Your task to perform on an android device: snooze an email in the gmail app Image 0: 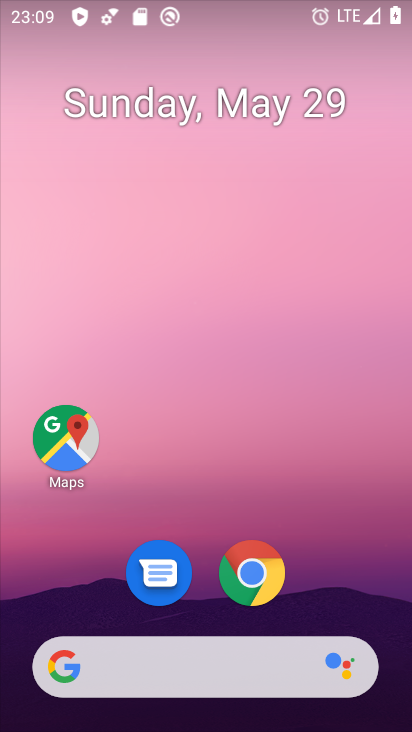
Step 0: drag from (343, 603) to (144, 24)
Your task to perform on an android device: snooze an email in the gmail app Image 1: 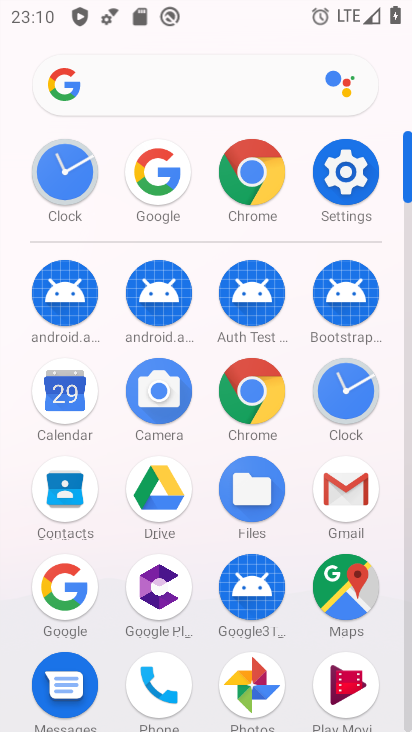
Step 1: click (336, 496)
Your task to perform on an android device: snooze an email in the gmail app Image 2: 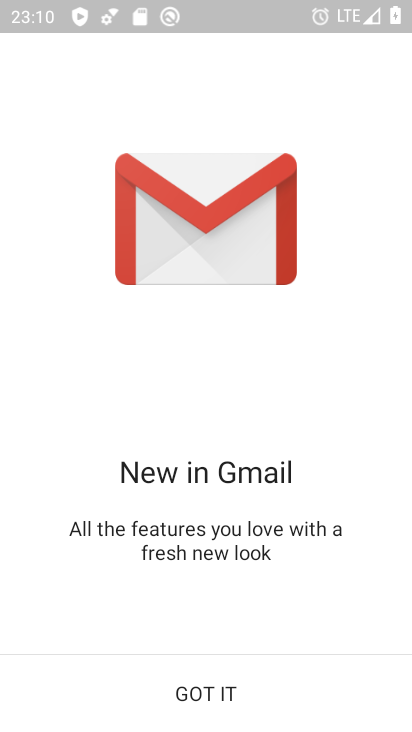
Step 2: click (216, 684)
Your task to perform on an android device: snooze an email in the gmail app Image 3: 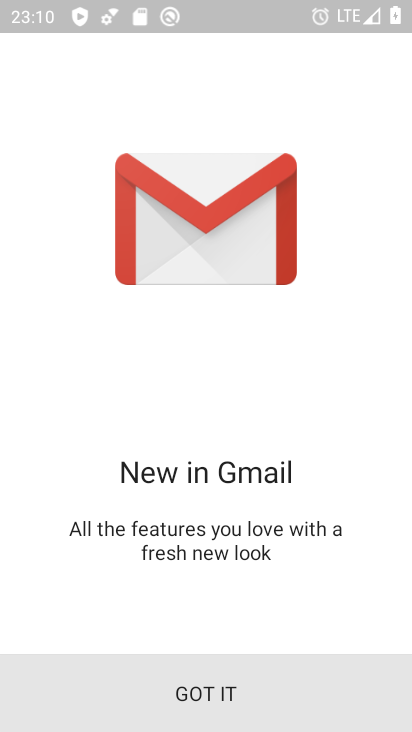
Step 3: click (216, 684)
Your task to perform on an android device: snooze an email in the gmail app Image 4: 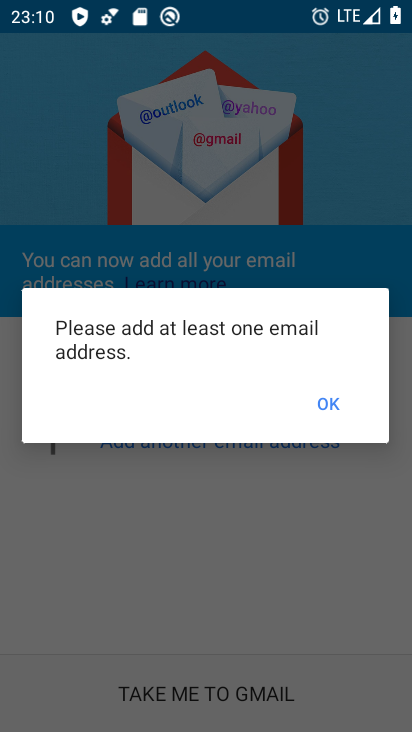
Step 4: click (337, 399)
Your task to perform on an android device: snooze an email in the gmail app Image 5: 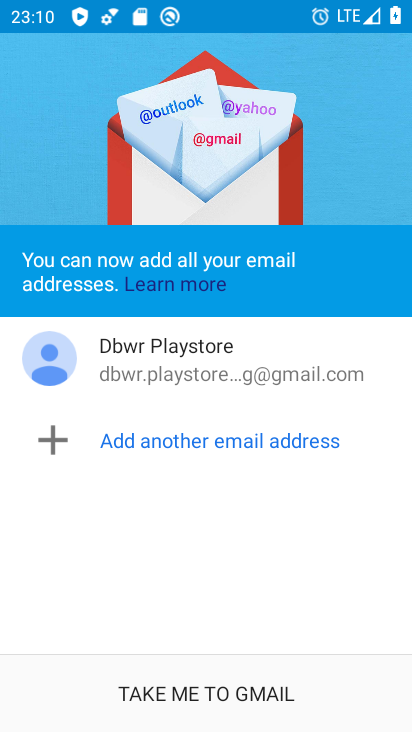
Step 5: click (254, 711)
Your task to perform on an android device: snooze an email in the gmail app Image 6: 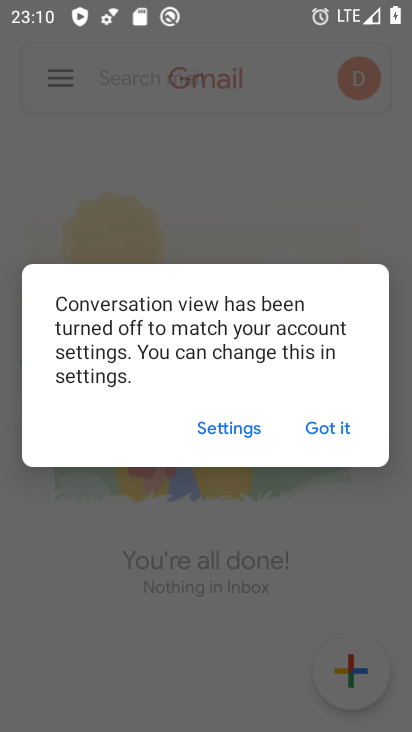
Step 6: click (319, 427)
Your task to perform on an android device: snooze an email in the gmail app Image 7: 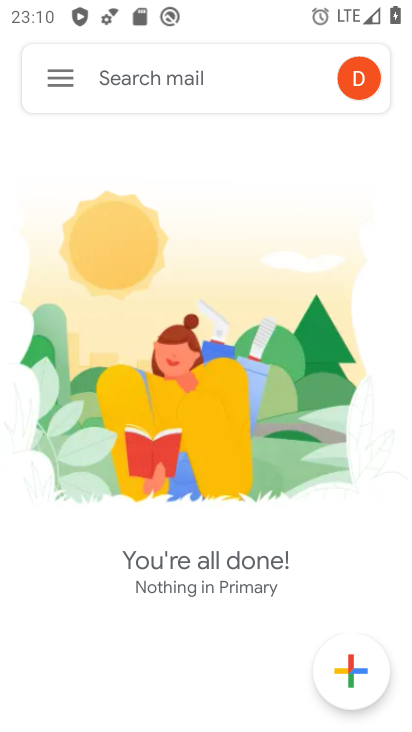
Step 7: click (65, 76)
Your task to perform on an android device: snooze an email in the gmail app Image 8: 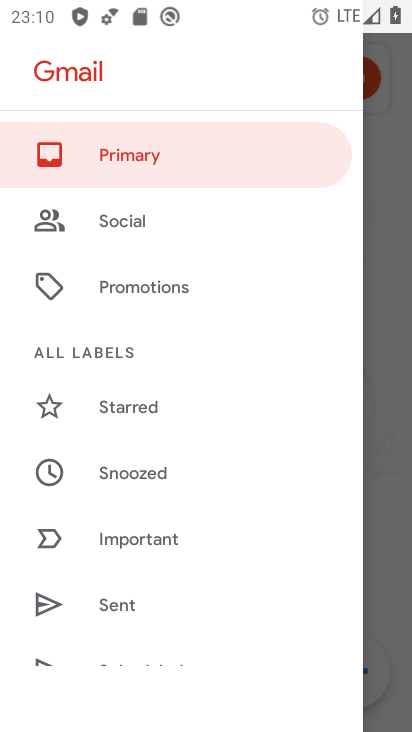
Step 8: click (389, 304)
Your task to perform on an android device: snooze an email in the gmail app Image 9: 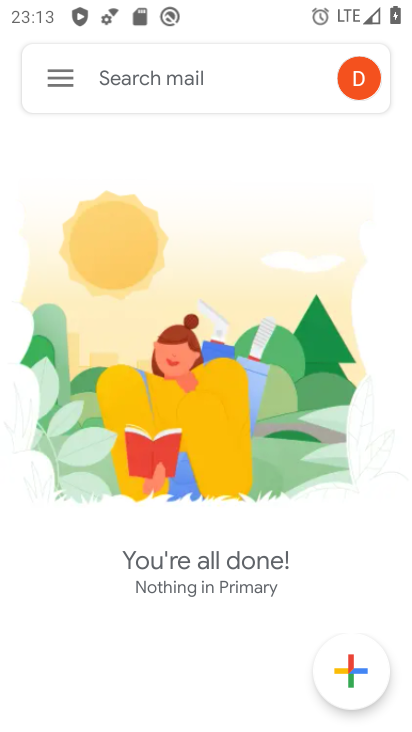
Step 9: task complete